Your task to perform on an android device: Go to Reddit.com Image 0: 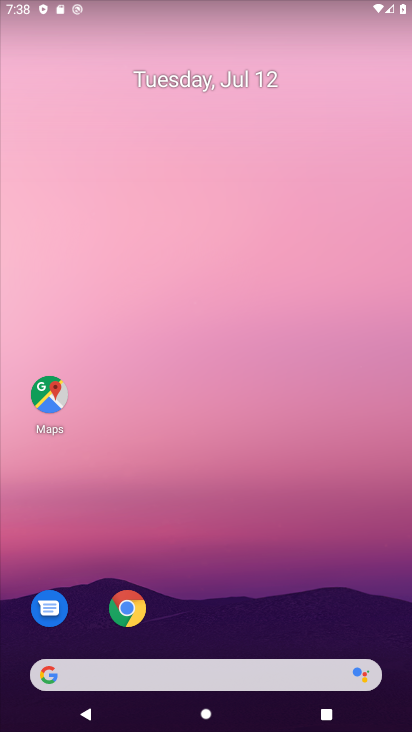
Step 0: click (130, 606)
Your task to perform on an android device: Go to Reddit.com Image 1: 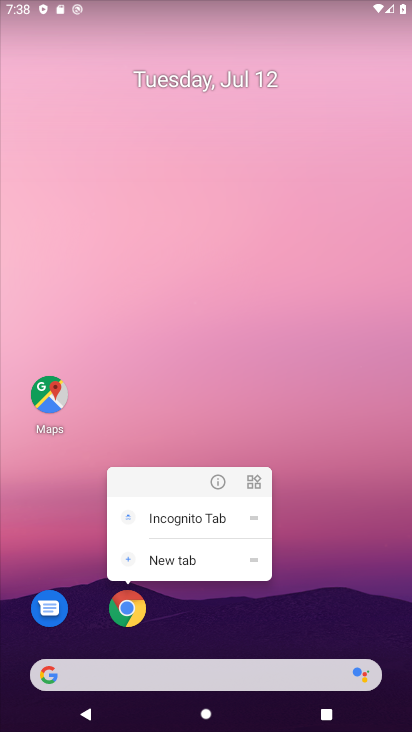
Step 1: click (129, 608)
Your task to perform on an android device: Go to Reddit.com Image 2: 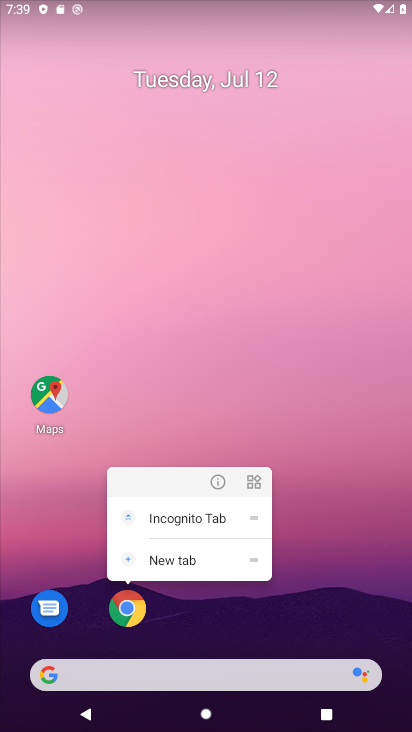
Step 2: click (124, 611)
Your task to perform on an android device: Go to Reddit.com Image 3: 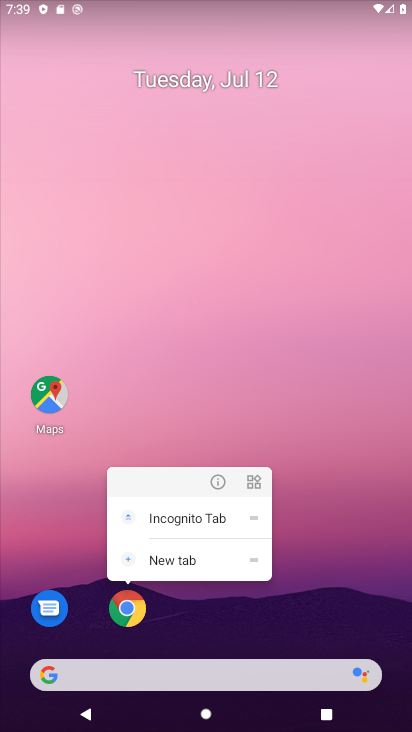
Step 3: click (130, 604)
Your task to perform on an android device: Go to Reddit.com Image 4: 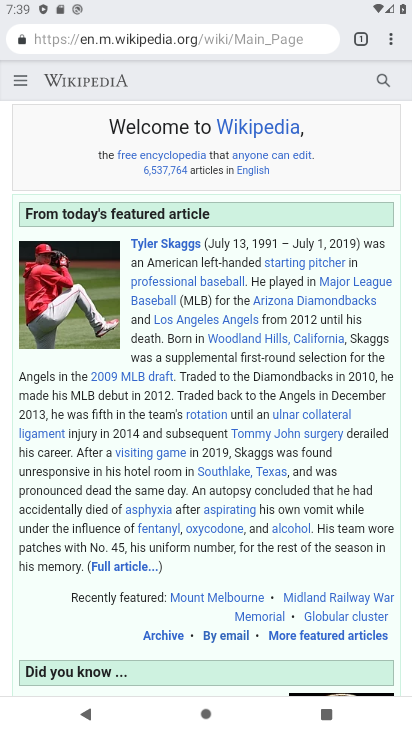
Step 4: drag from (395, 42) to (314, 70)
Your task to perform on an android device: Go to Reddit.com Image 5: 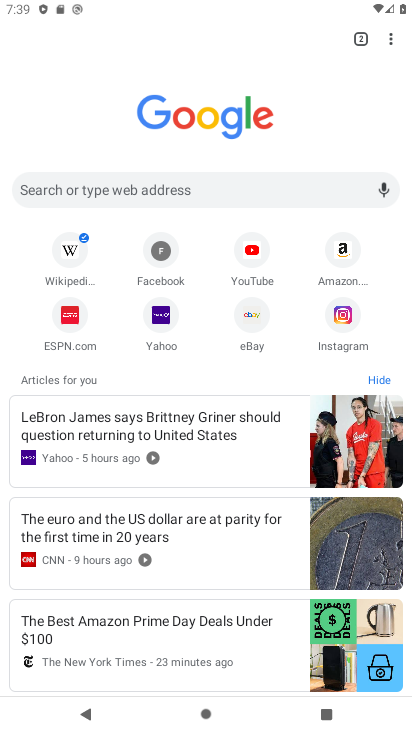
Step 5: click (98, 176)
Your task to perform on an android device: Go to Reddit.com Image 6: 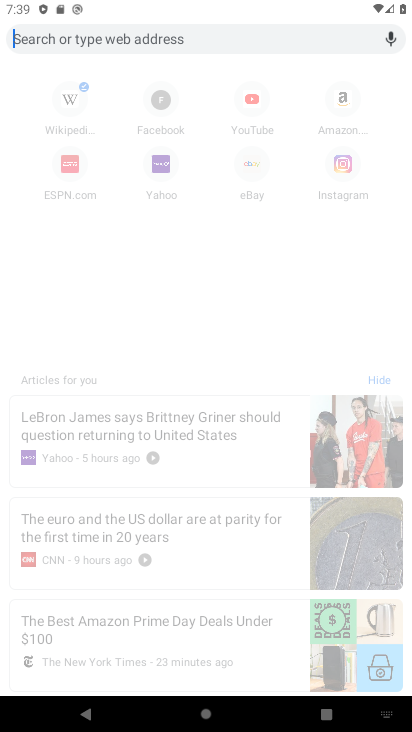
Step 6: type "reddit.com"
Your task to perform on an android device: Go to Reddit.com Image 7: 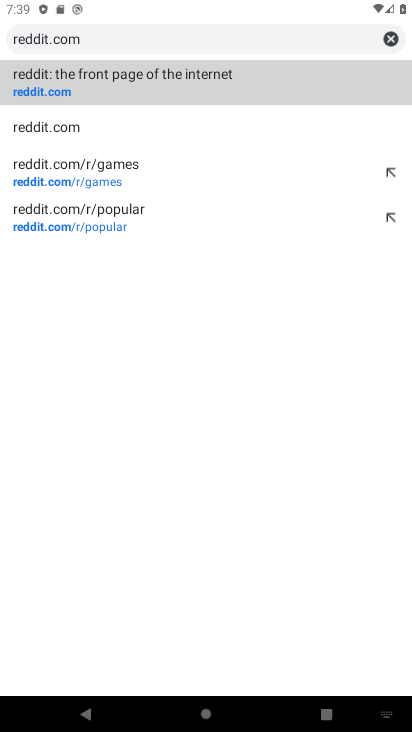
Step 7: click (201, 85)
Your task to perform on an android device: Go to Reddit.com Image 8: 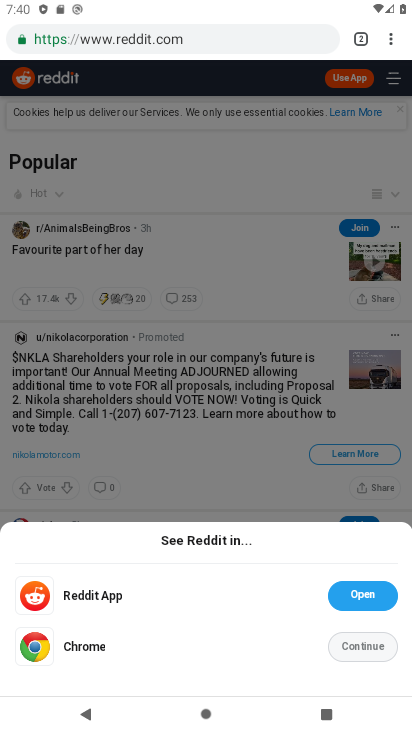
Step 8: task complete